Your task to perform on an android device: add a label to a message in the gmail app Image 0: 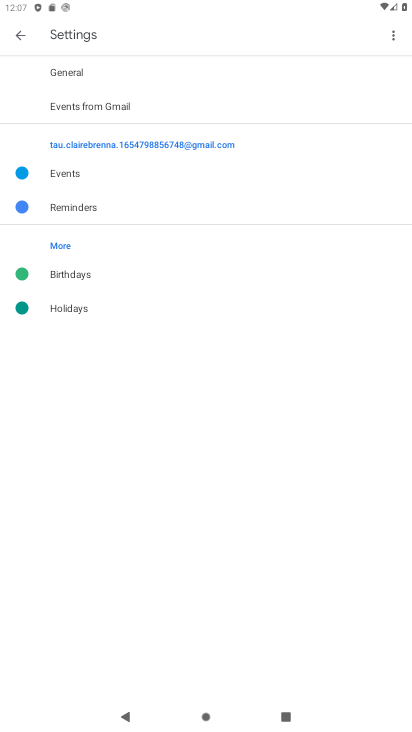
Step 0: press home button
Your task to perform on an android device: add a label to a message in the gmail app Image 1: 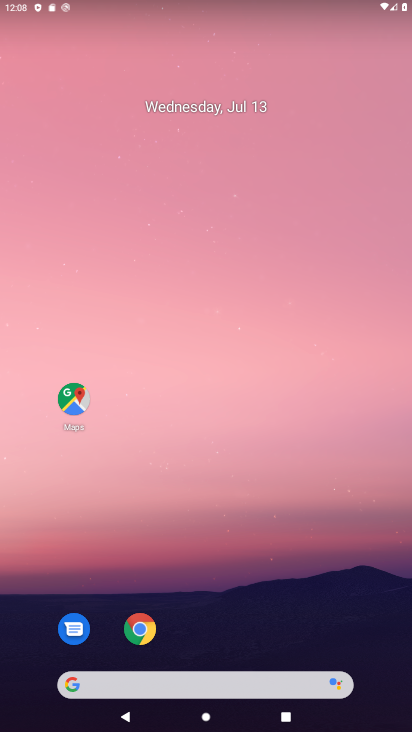
Step 1: drag from (189, 632) to (200, 230)
Your task to perform on an android device: add a label to a message in the gmail app Image 2: 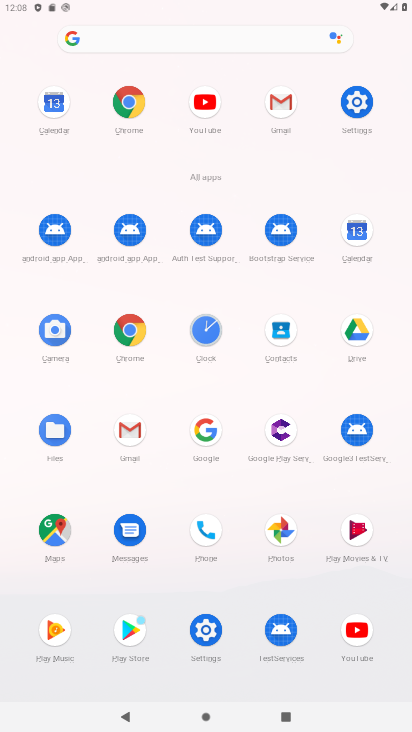
Step 2: click (296, 108)
Your task to perform on an android device: add a label to a message in the gmail app Image 3: 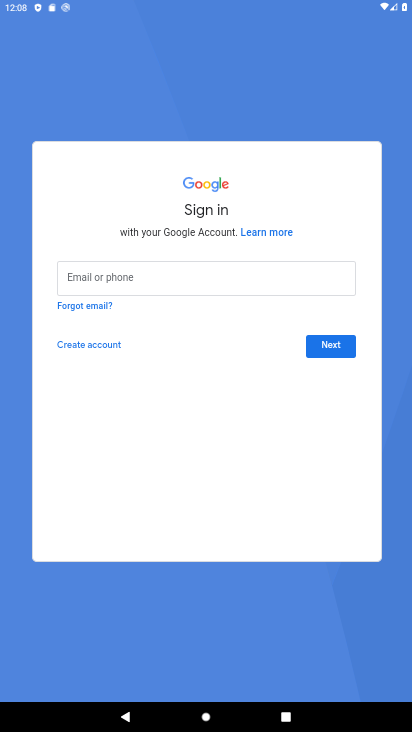
Step 3: task complete